Your task to perform on an android device: star an email in the gmail app Image 0: 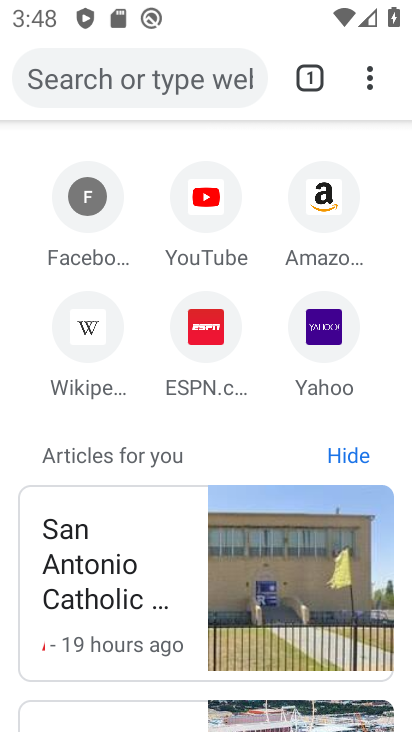
Step 0: press back button
Your task to perform on an android device: star an email in the gmail app Image 1: 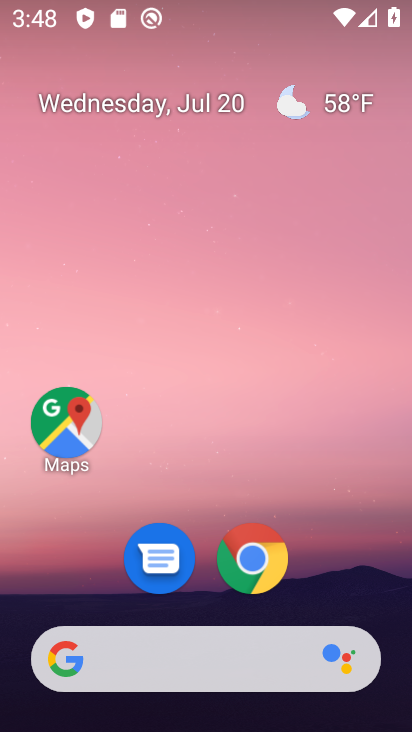
Step 1: drag from (101, 551) to (260, 46)
Your task to perform on an android device: star an email in the gmail app Image 2: 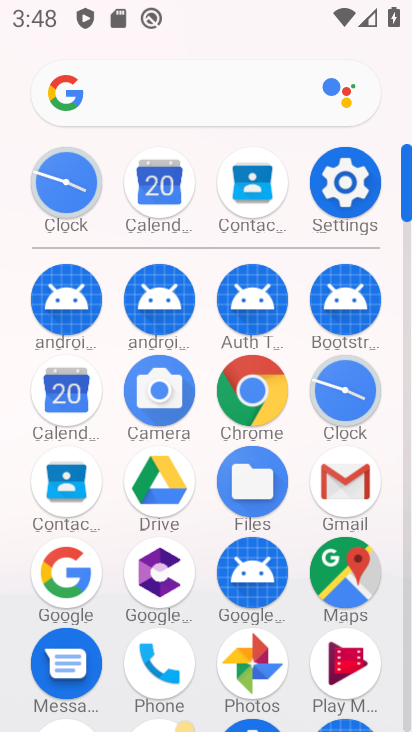
Step 2: click (362, 476)
Your task to perform on an android device: star an email in the gmail app Image 3: 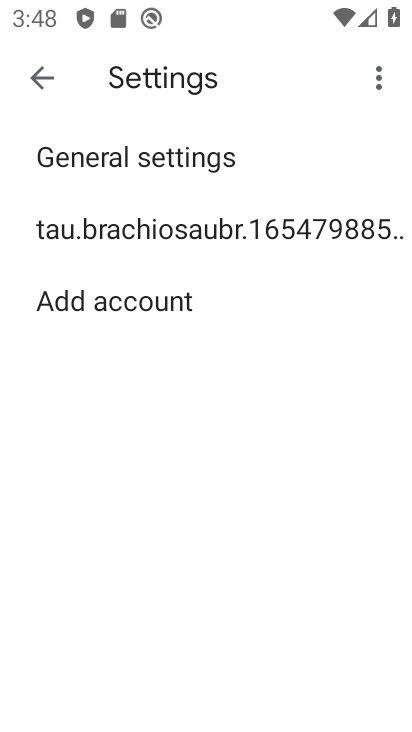
Step 3: click (47, 76)
Your task to perform on an android device: star an email in the gmail app Image 4: 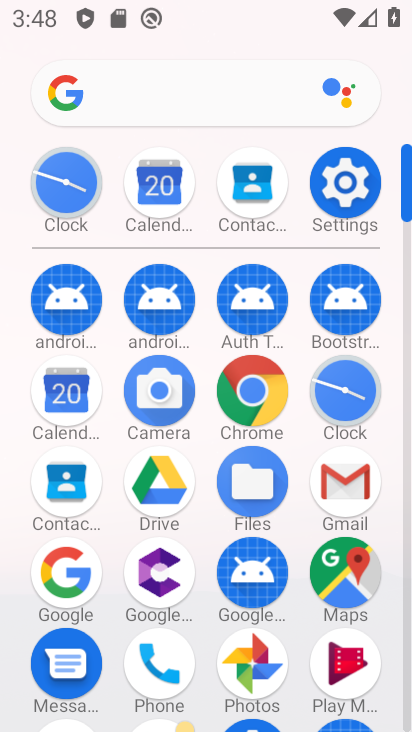
Step 4: click (359, 488)
Your task to perform on an android device: star an email in the gmail app Image 5: 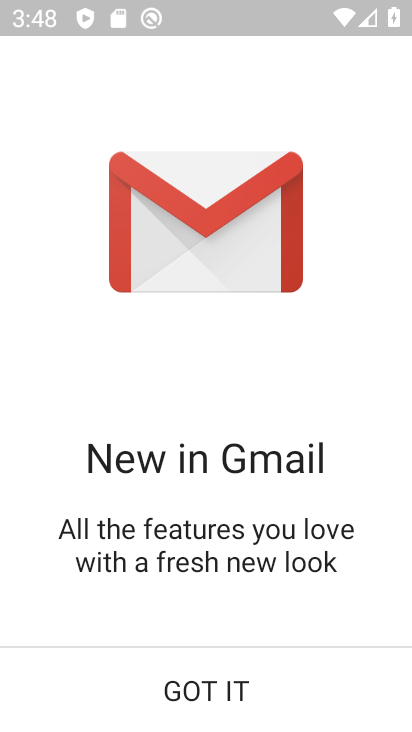
Step 5: click (202, 653)
Your task to perform on an android device: star an email in the gmail app Image 6: 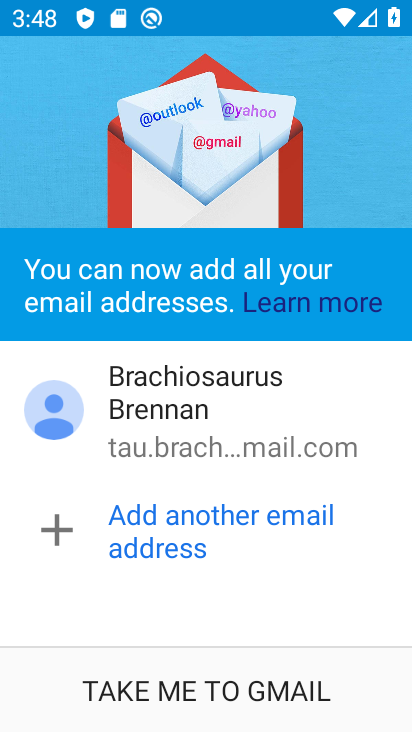
Step 6: click (179, 686)
Your task to perform on an android device: star an email in the gmail app Image 7: 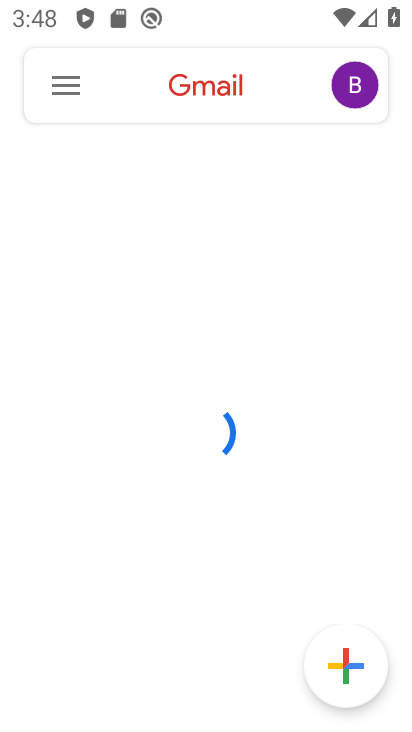
Step 7: click (71, 83)
Your task to perform on an android device: star an email in the gmail app Image 8: 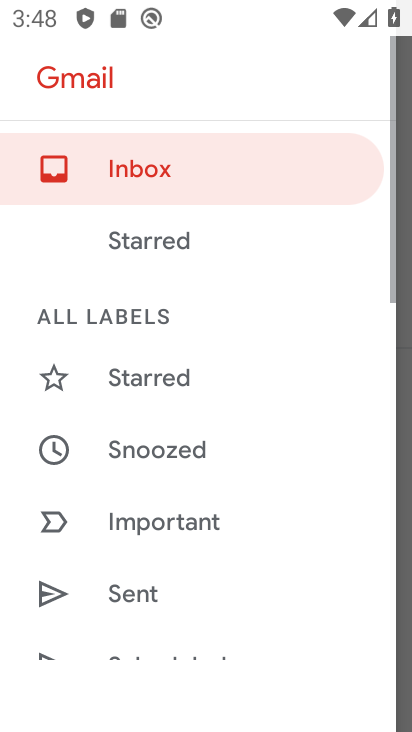
Step 8: drag from (159, 627) to (155, 113)
Your task to perform on an android device: star an email in the gmail app Image 9: 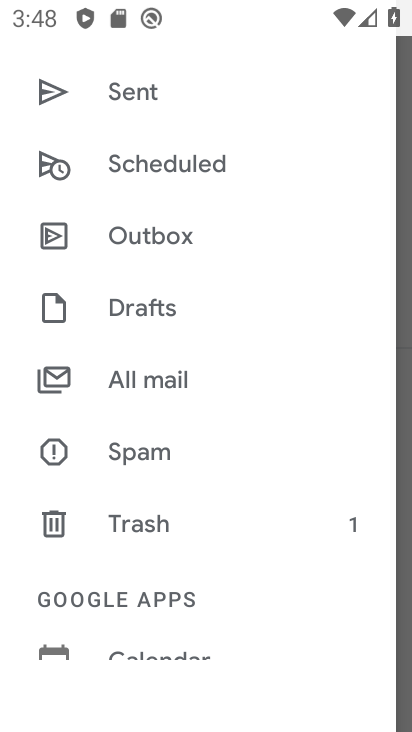
Step 9: click (150, 381)
Your task to perform on an android device: star an email in the gmail app Image 10: 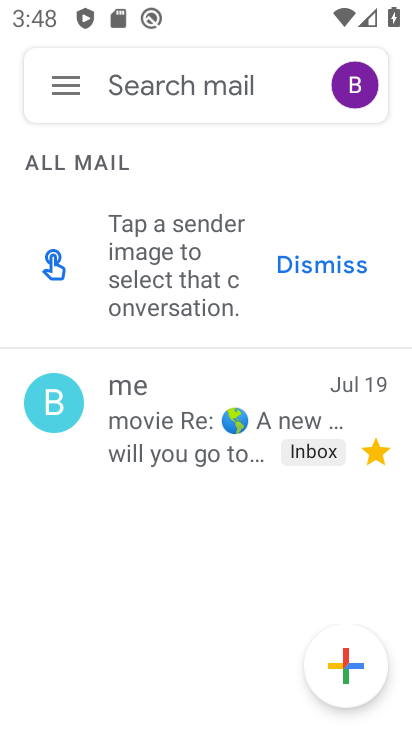
Step 10: task complete